Your task to perform on an android device: open sync settings in chrome Image 0: 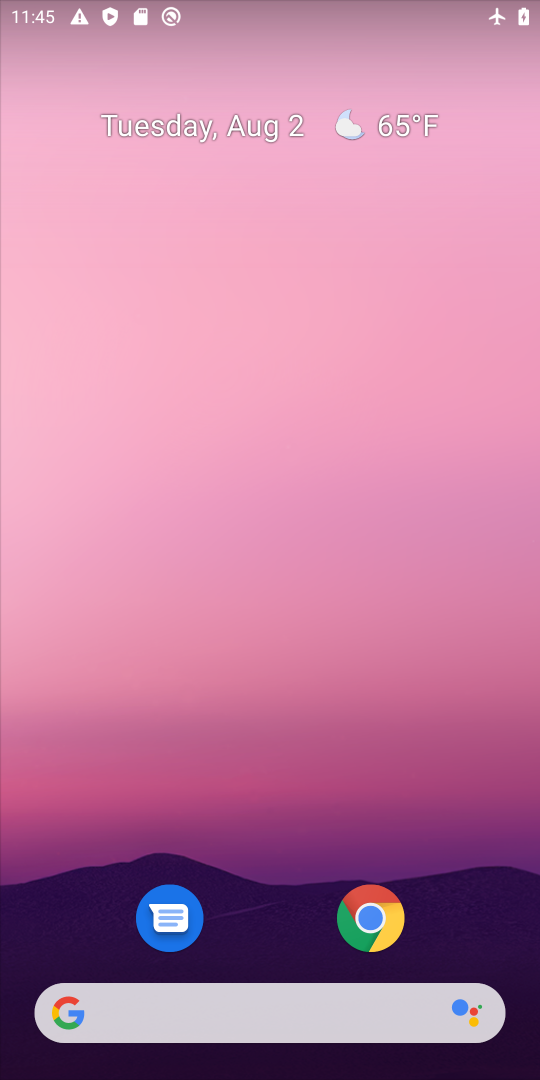
Step 0: click (382, 906)
Your task to perform on an android device: open sync settings in chrome Image 1: 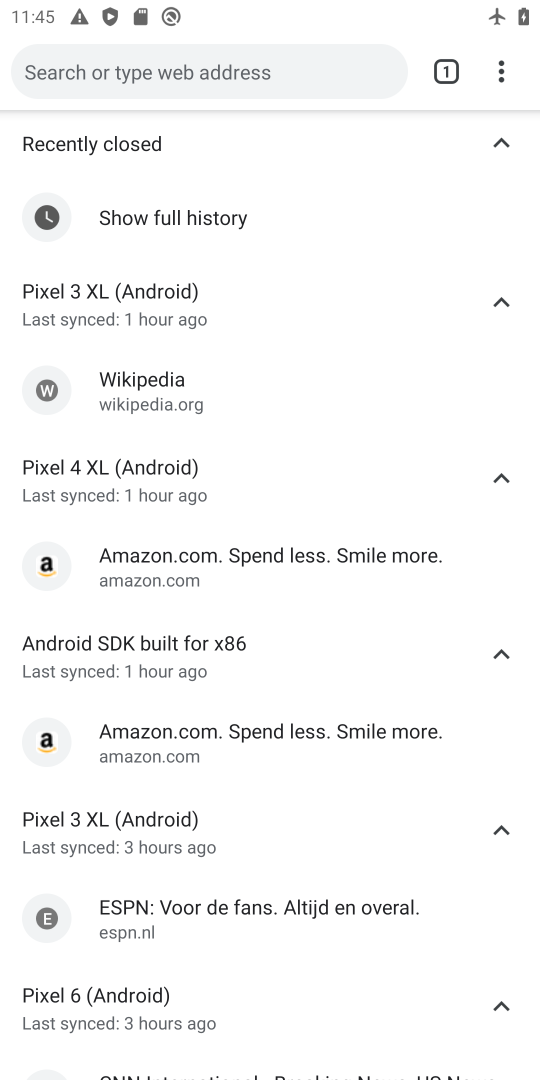
Step 1: click (501, 69)
Your task to perform on an android device: open sync settings in chrome Image 2: 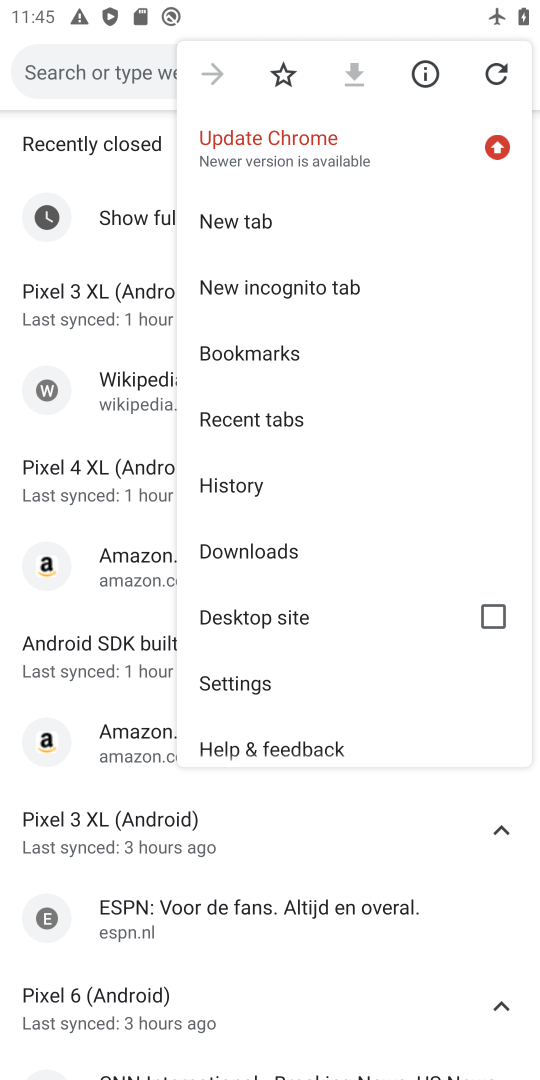
Step 2: click (250, 673)
Your task to perform on an android device: open sync settings in chrome Image 3: 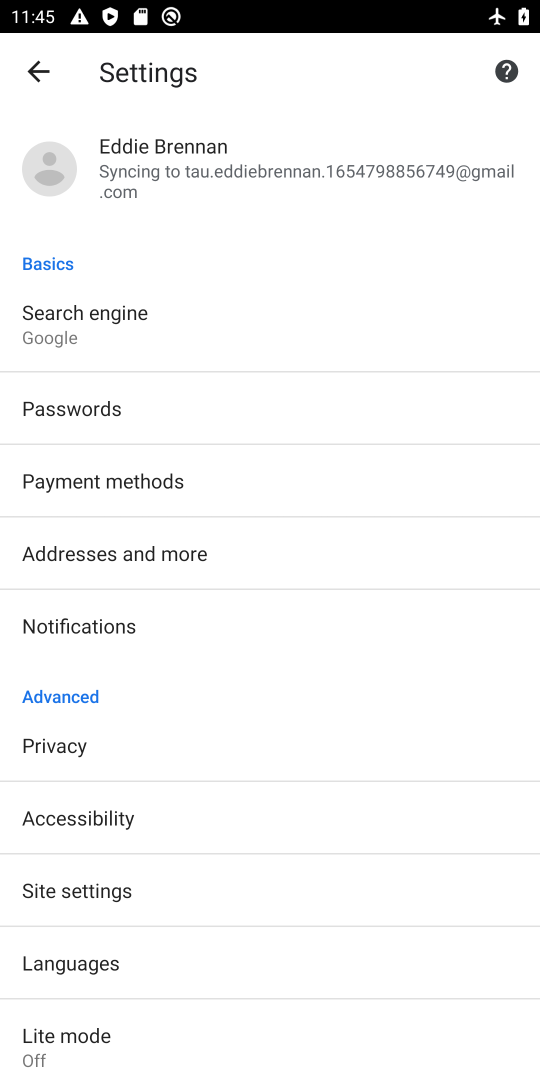
Step 3: click (255, 167)
Your task to perform on an android device: open sync settings in chrome Image 4: 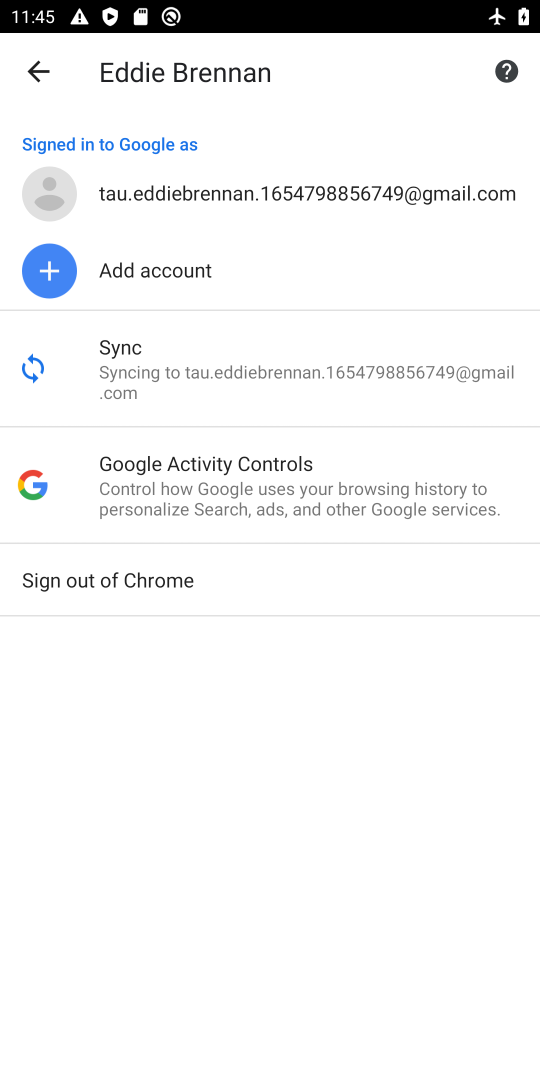
Step 4: click (220, 354)
Your task to perform on an android device: open sync settings in chrome Image 5: 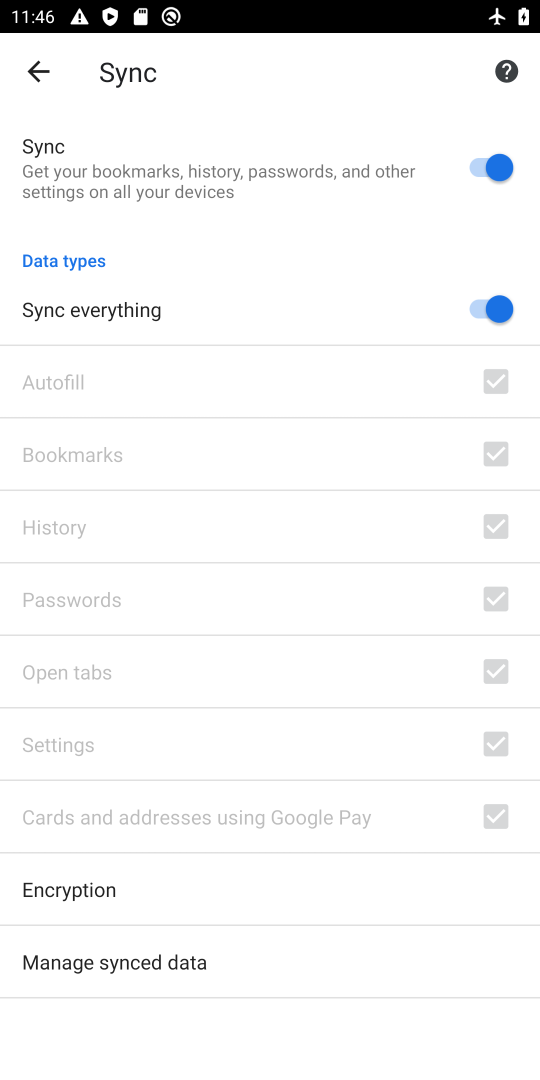
Step 5: task complete